Your task to perform on an android device: turn off picture-in-picture Image 0: 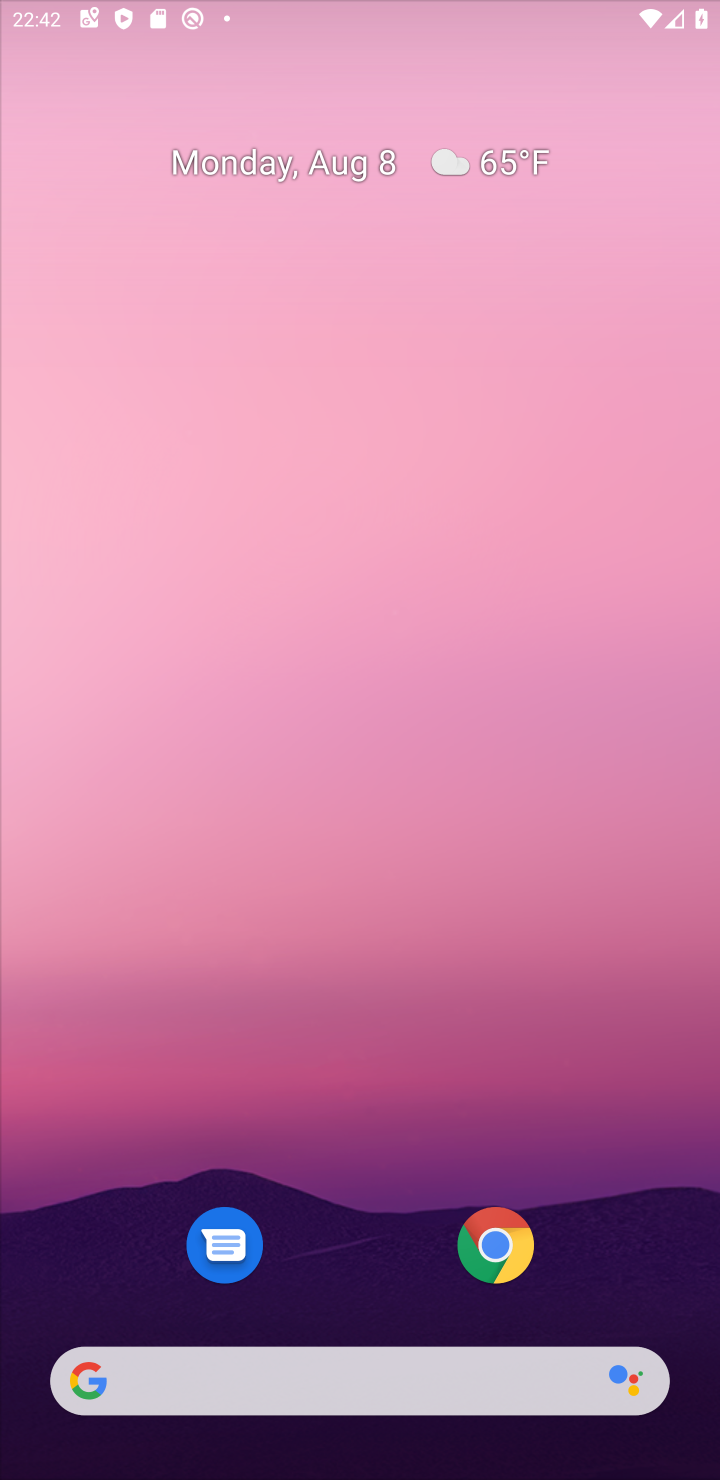
Step 0: click (155, 749)
Your task to perform on an android device: turn off picture-in-picture Image 1: 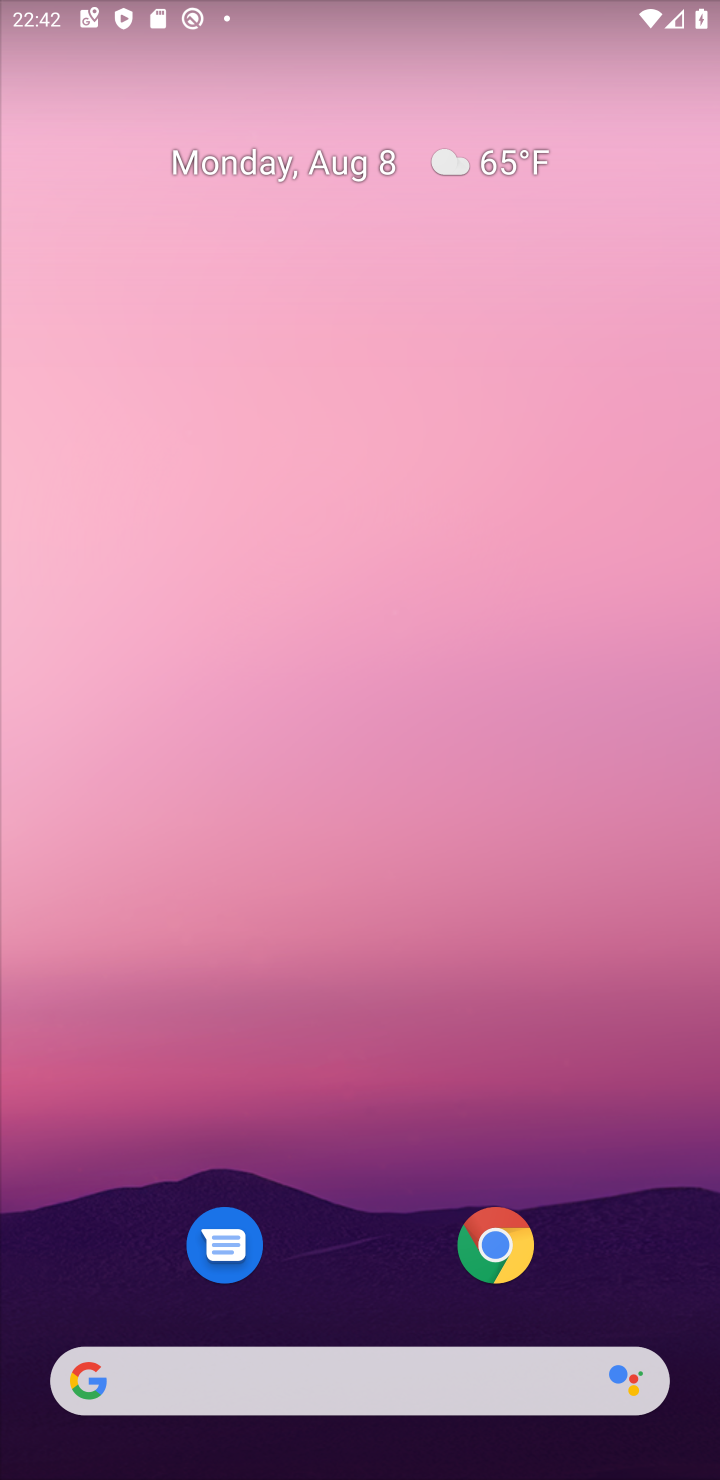
Step 1: drag from (355, 1122) to (391, 170)
Your task to perform on an android device: turn off picture-in-picture Image 2: 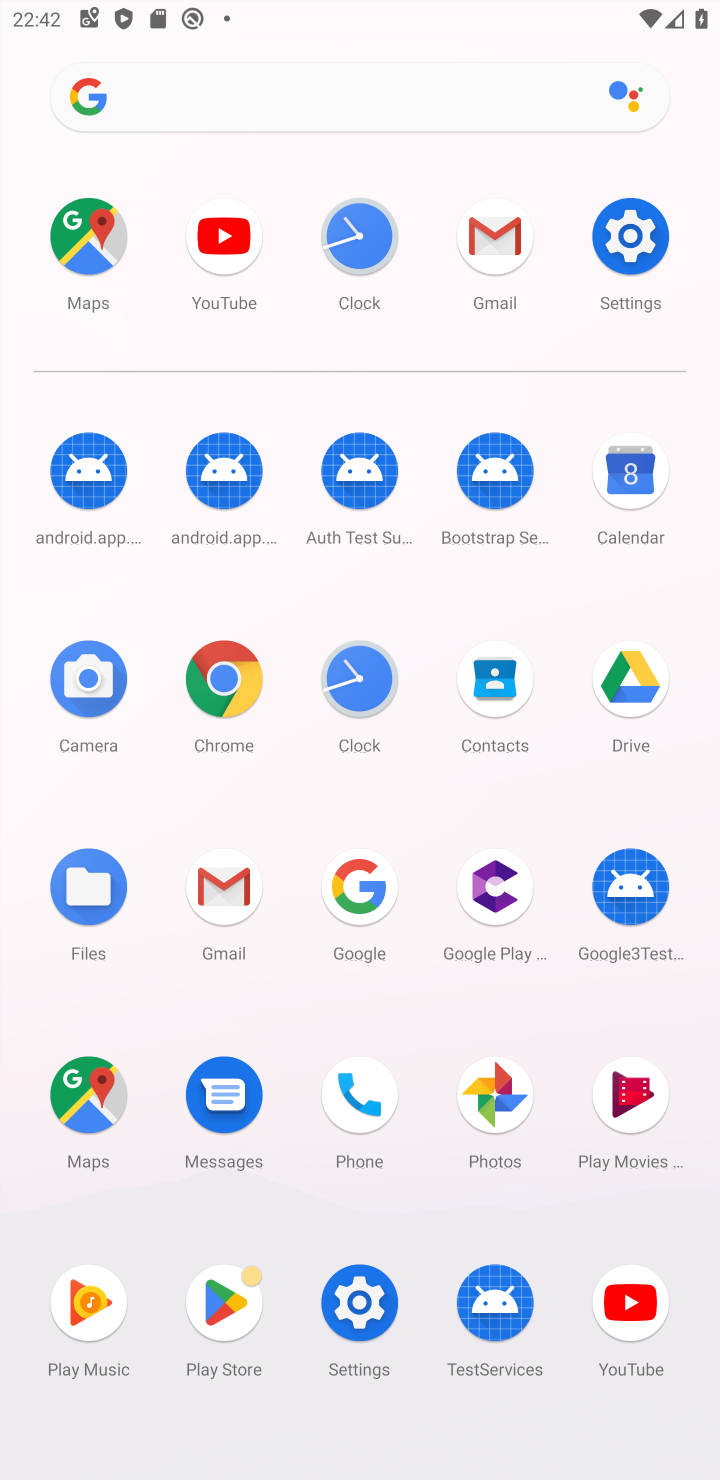
Step 2: click (632, 237)
Your task to perform on an android device: turn off picture-in-picture Image 3: 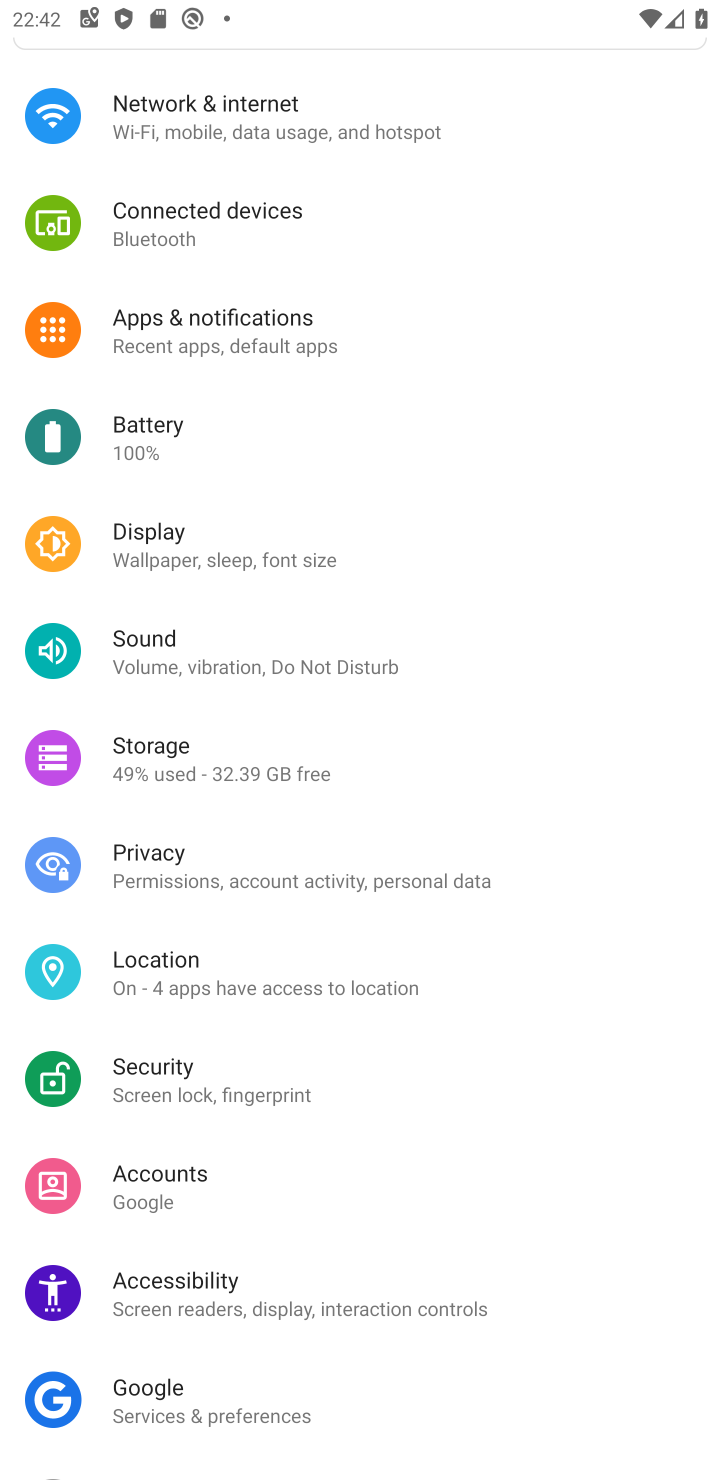
Step 3: click (187, 318)
Your task to perform on an android device: turn off picture-in-picture Image 4: 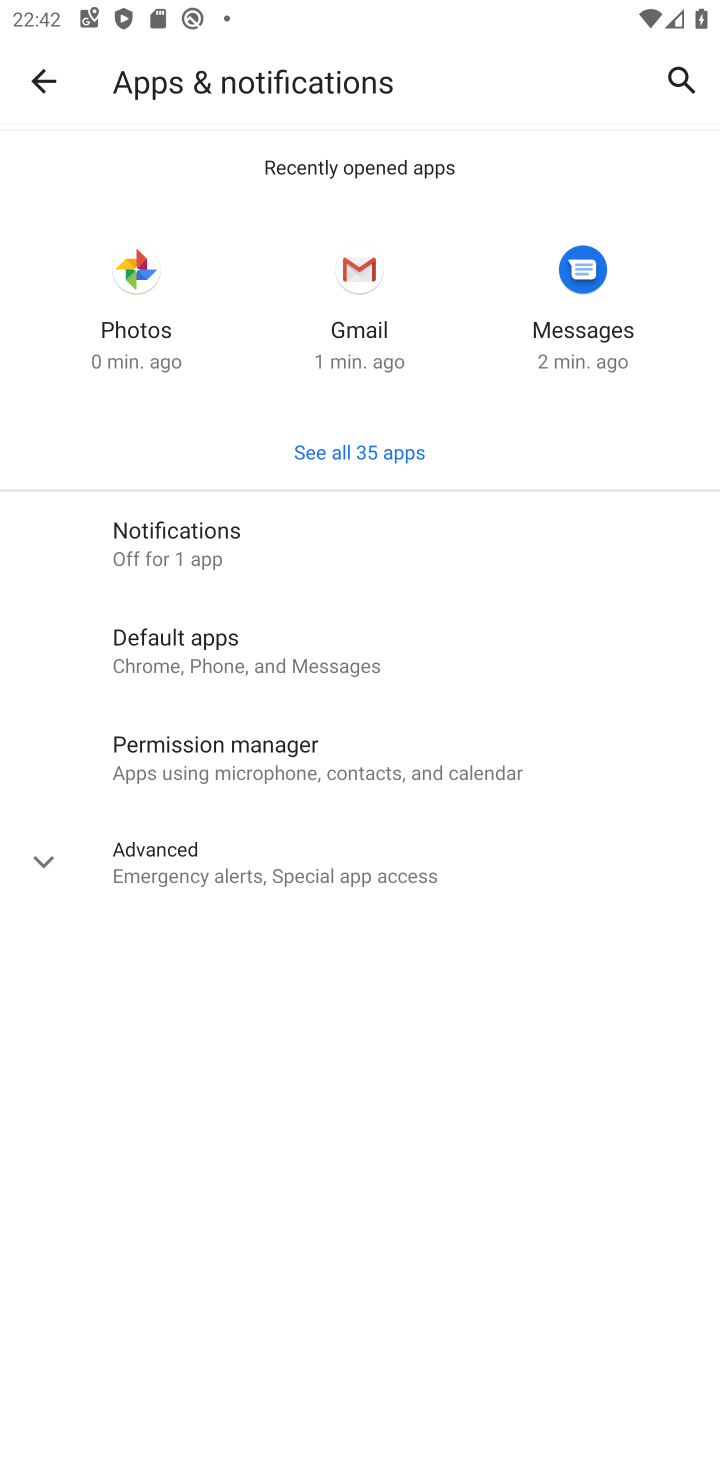
Step 4: click (77, 836)
Your task to perform on an android device: turn off picture-in-picture Image 5: 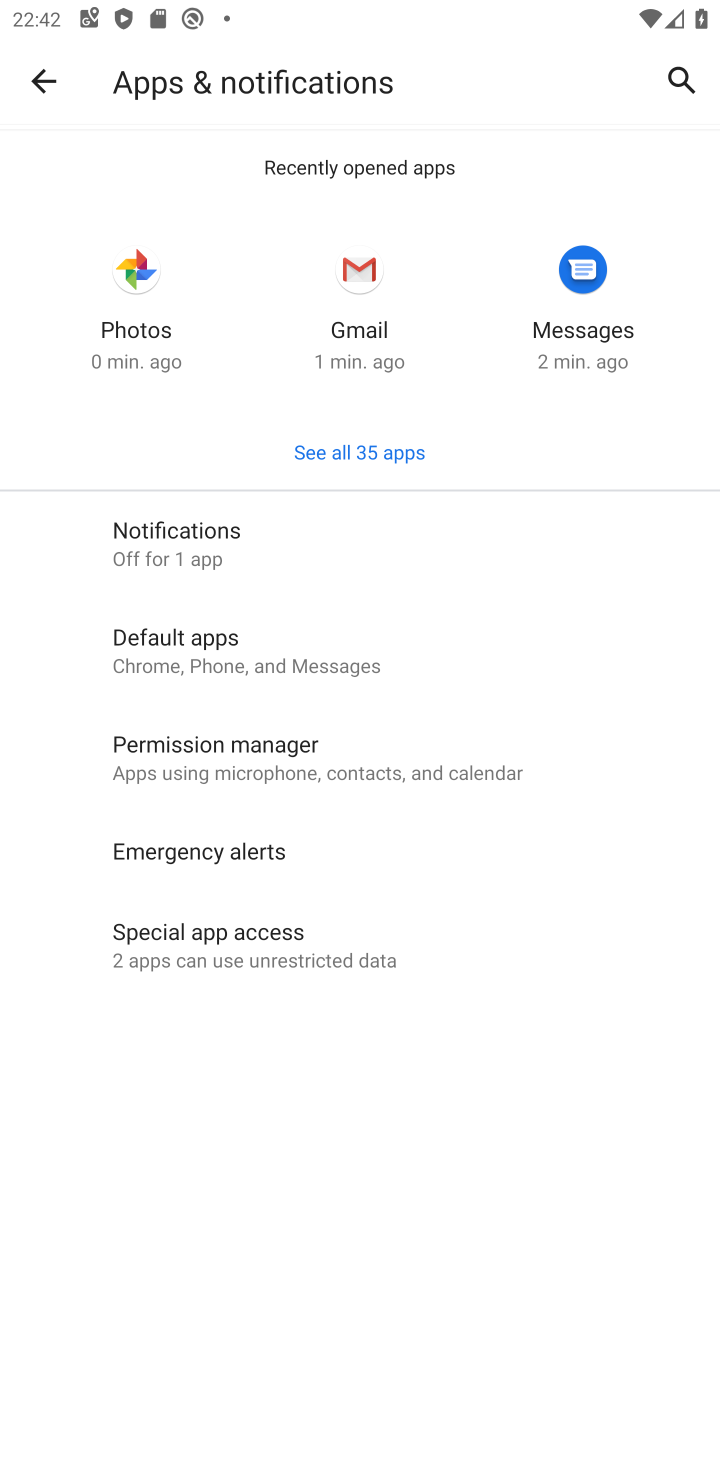
Step 5: click (214, 934)
Your task to perform on an android device: turn off picture-in-picture Image 6: 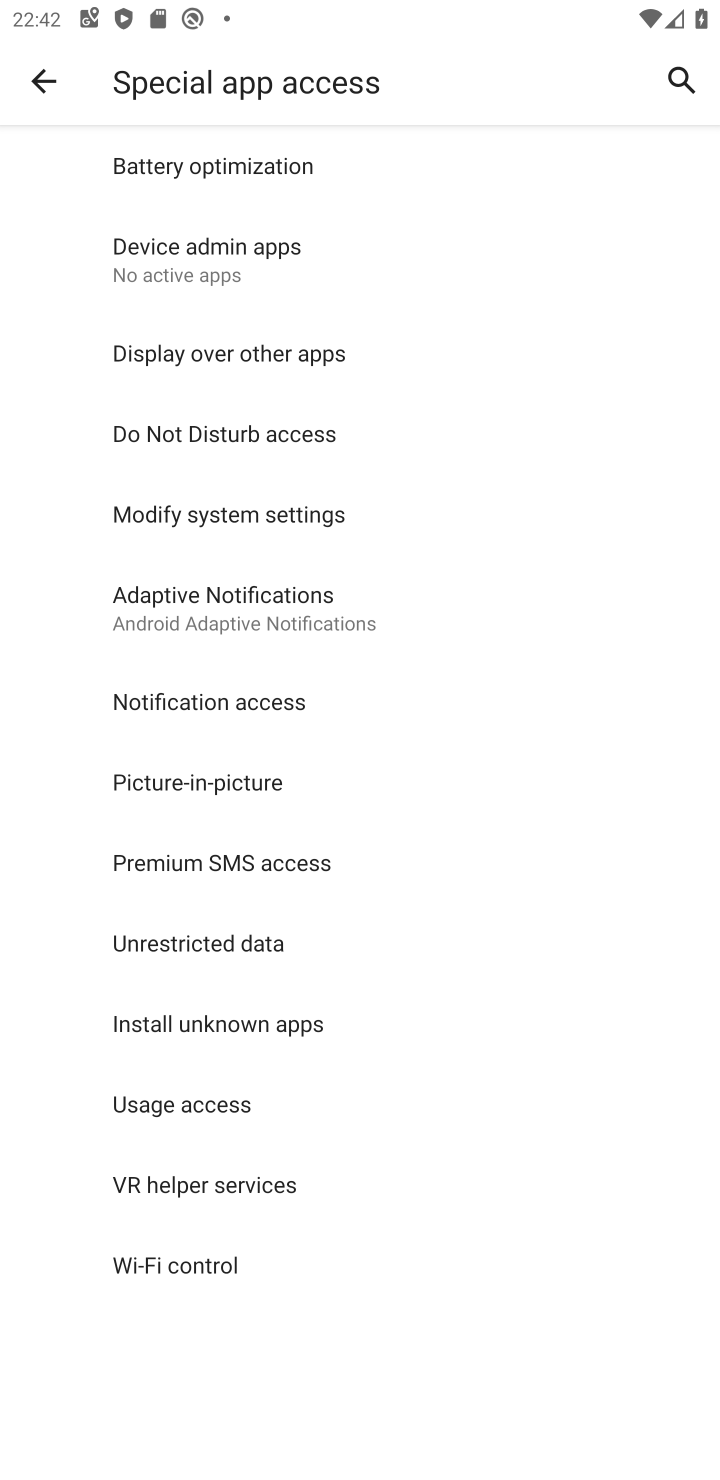
Step 6: click (200, 776)
Your task to perform on an android device: turn off picture-in-picture Image 7: 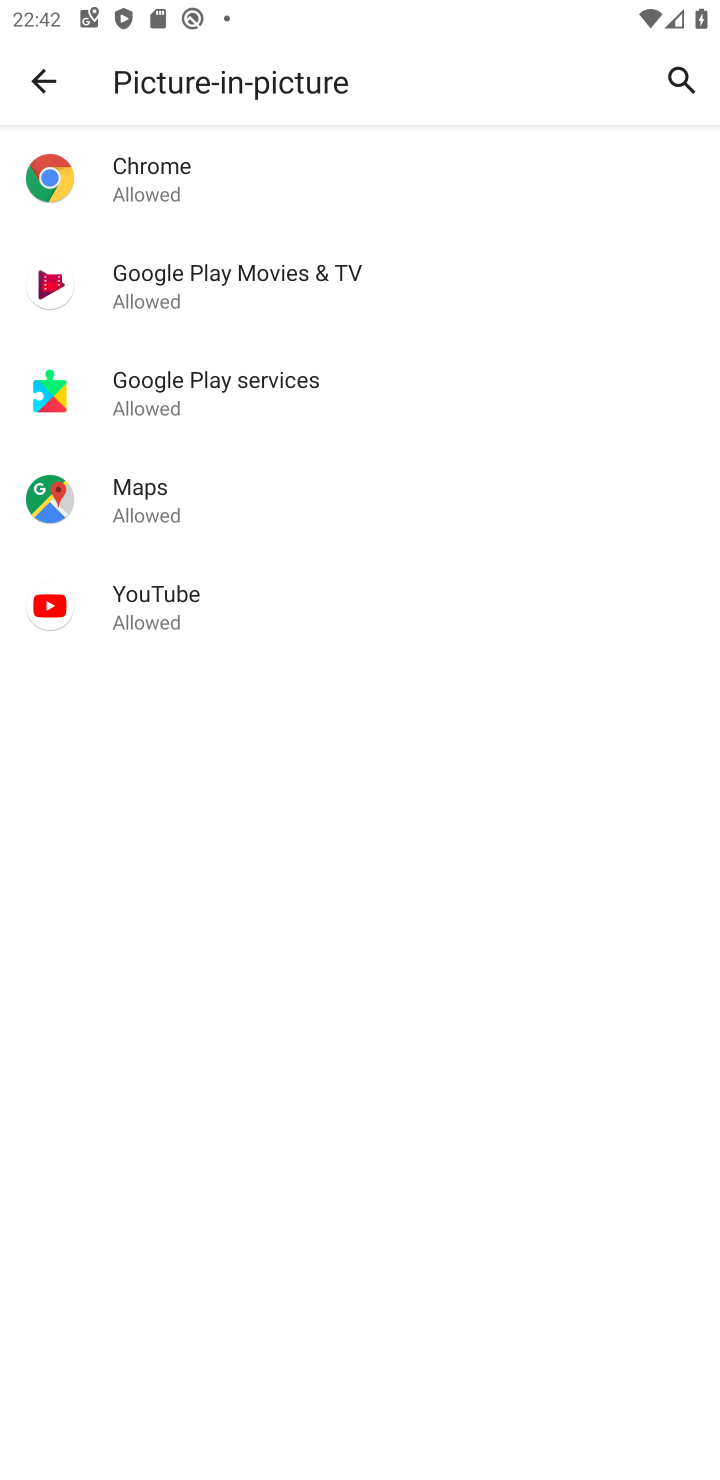
Step 7: click (130, 156)
Your task to perform on an android device: turn off picture-in-picture Image 8: 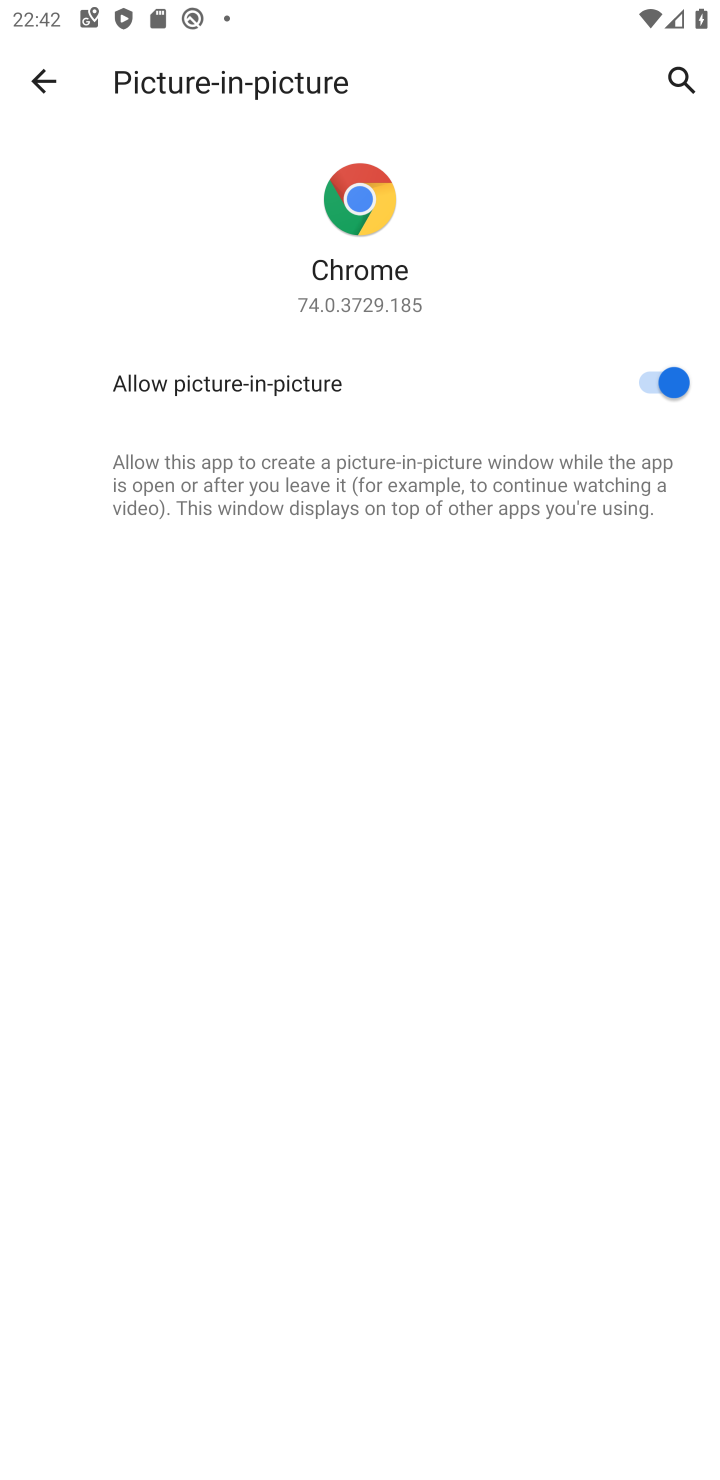
Step 8: click (660, 387)
Your task to perform on an android device: turn off picture-in-picture Image 9: 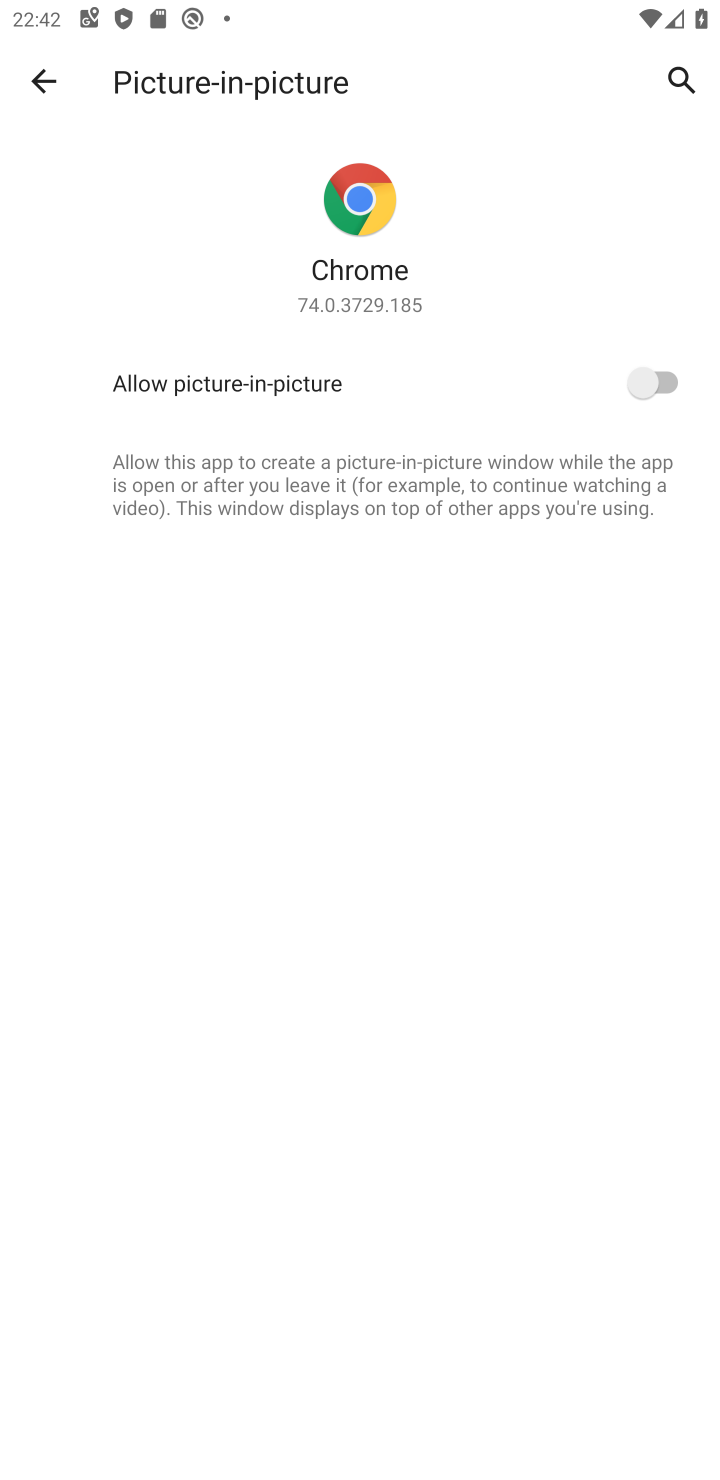
Step 9: click (36, 91)
Your task to perform on an android device: turn off picture-in-picture Image 10: 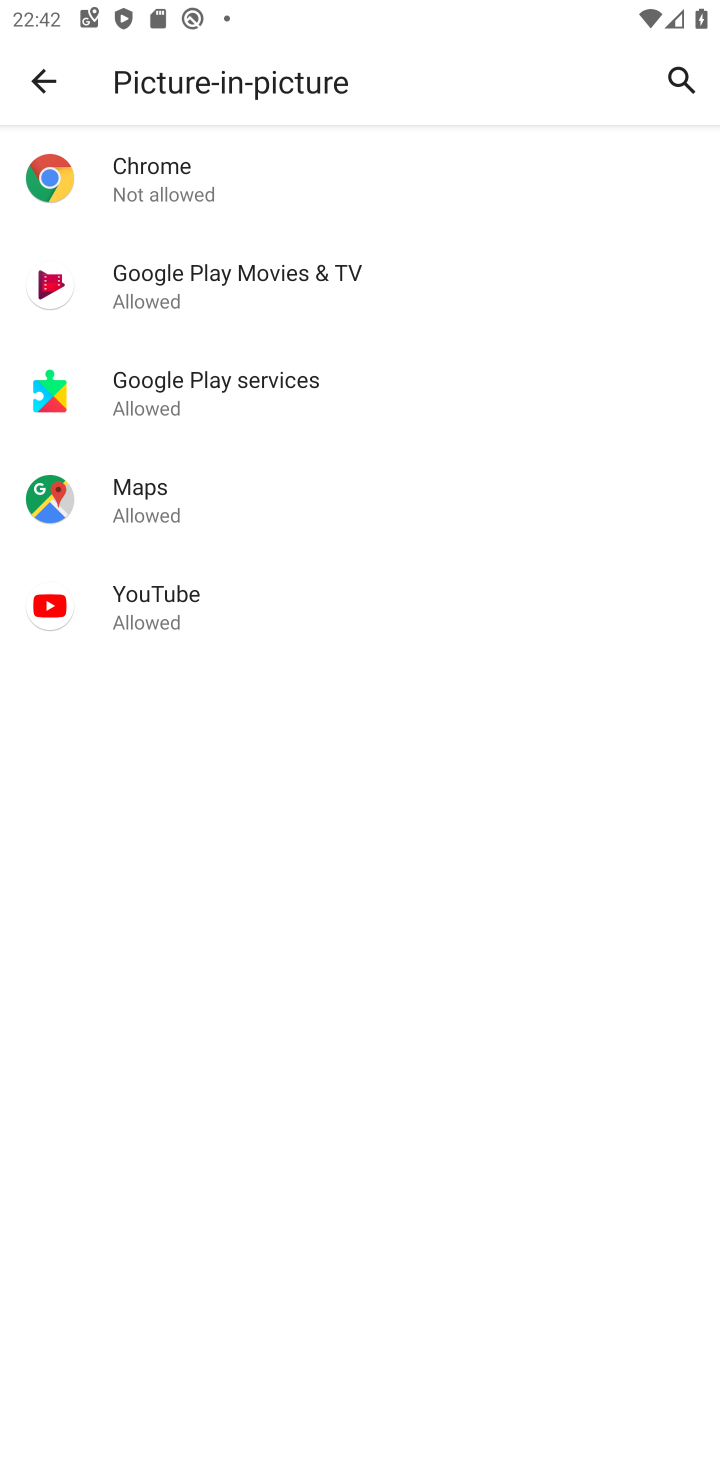
Step 10: click (180, 285)
Your task to perform on an android device: turn off picture-in-picture Image 11: 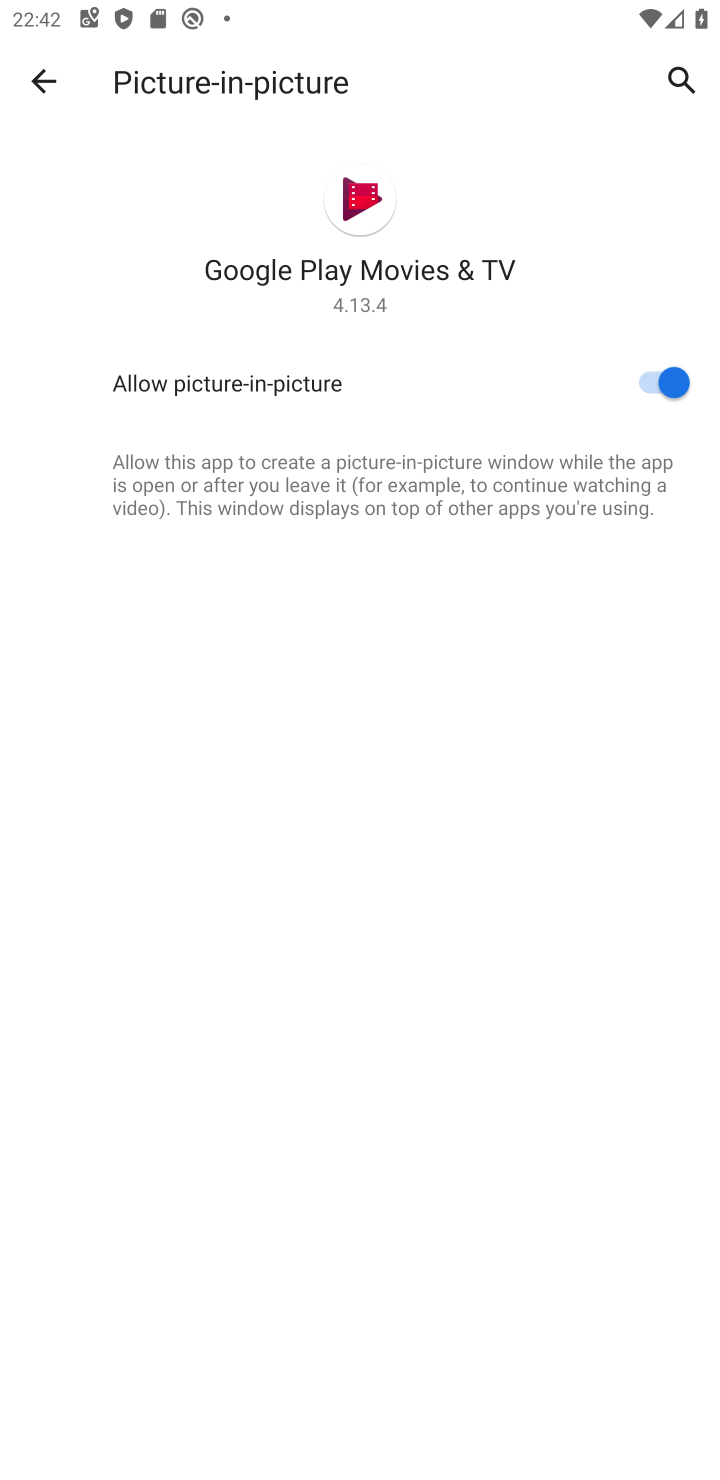
Step 11: click (649, 373)
Your task to perform on an android device: turn off picture-in-picture Image 12: 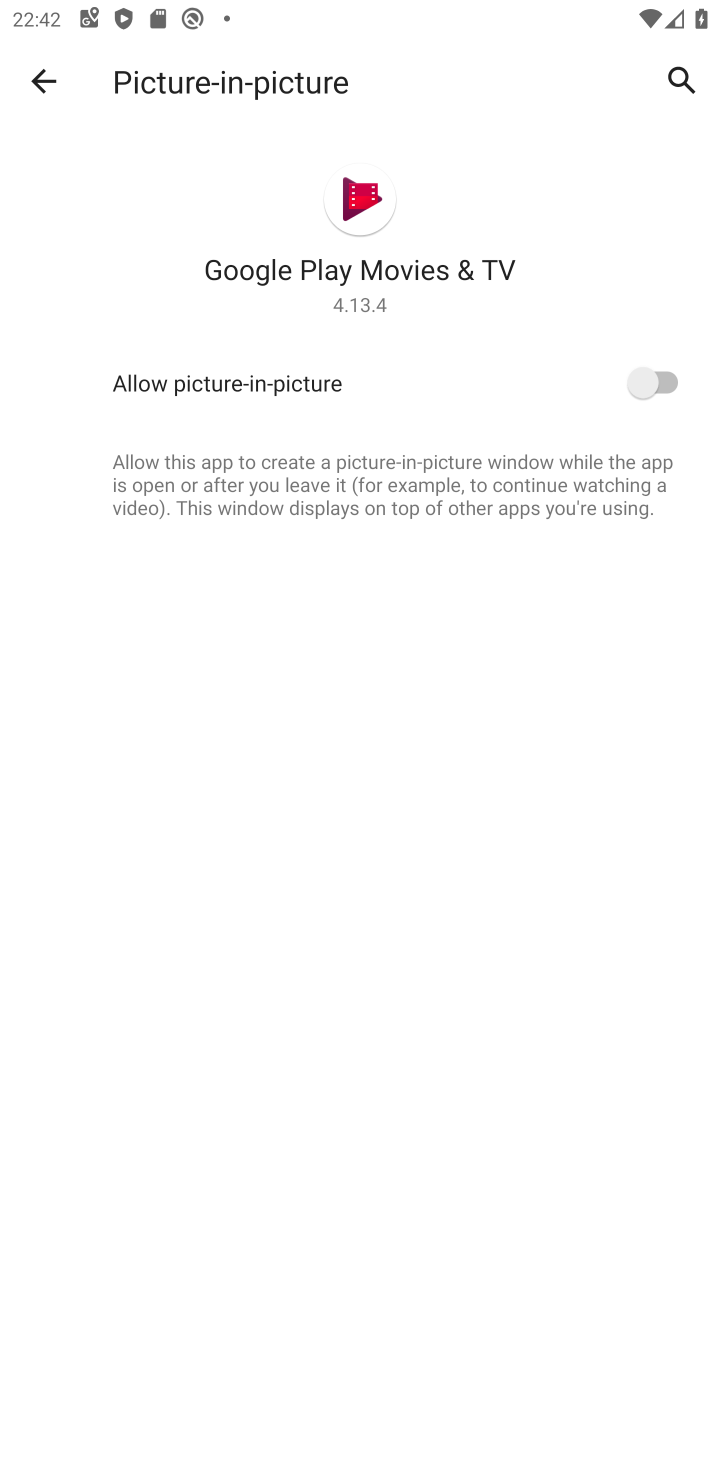
Step 12: click (43, 76)
Your task to perform on an android device: turn off picture-in-picture Image 13: 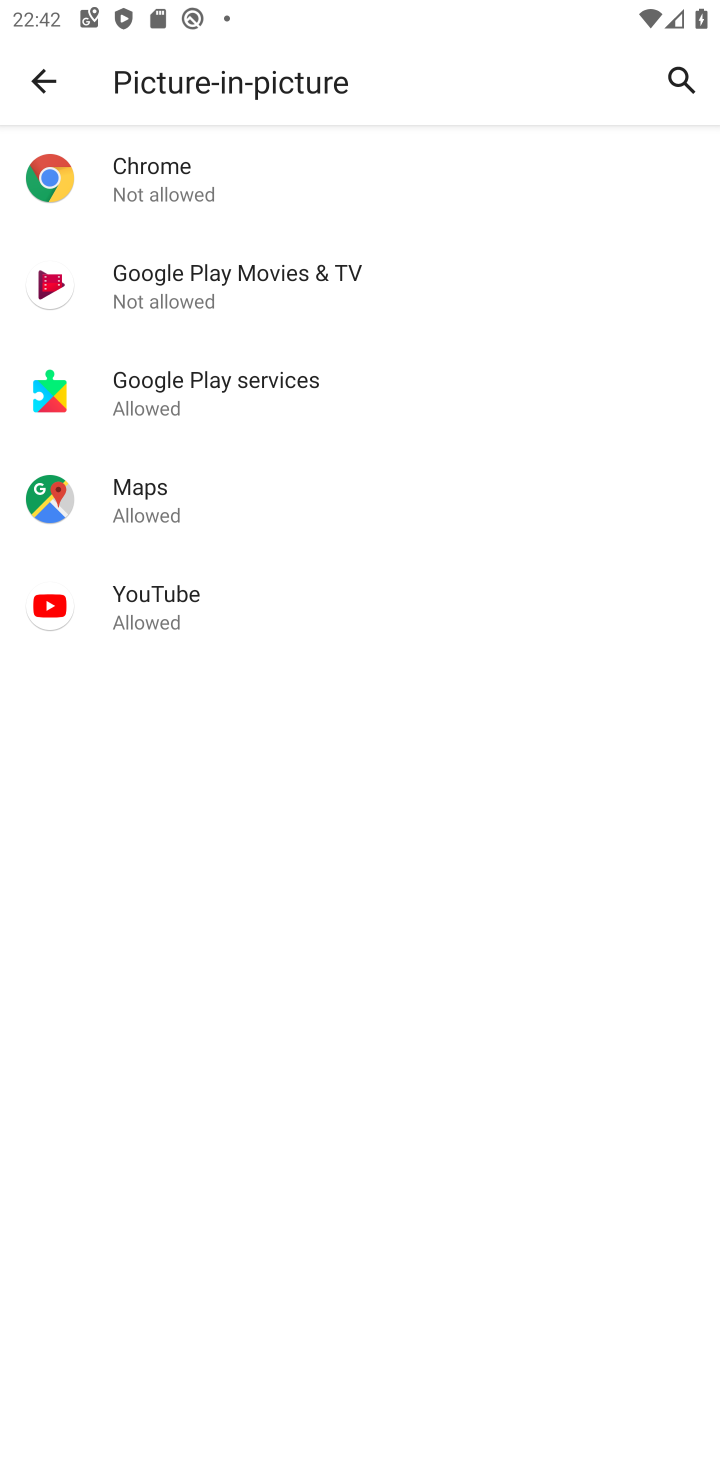
Step 13: click (139, 387)
Your task to perform on an android device: turn off picture-in-picture Image 14: 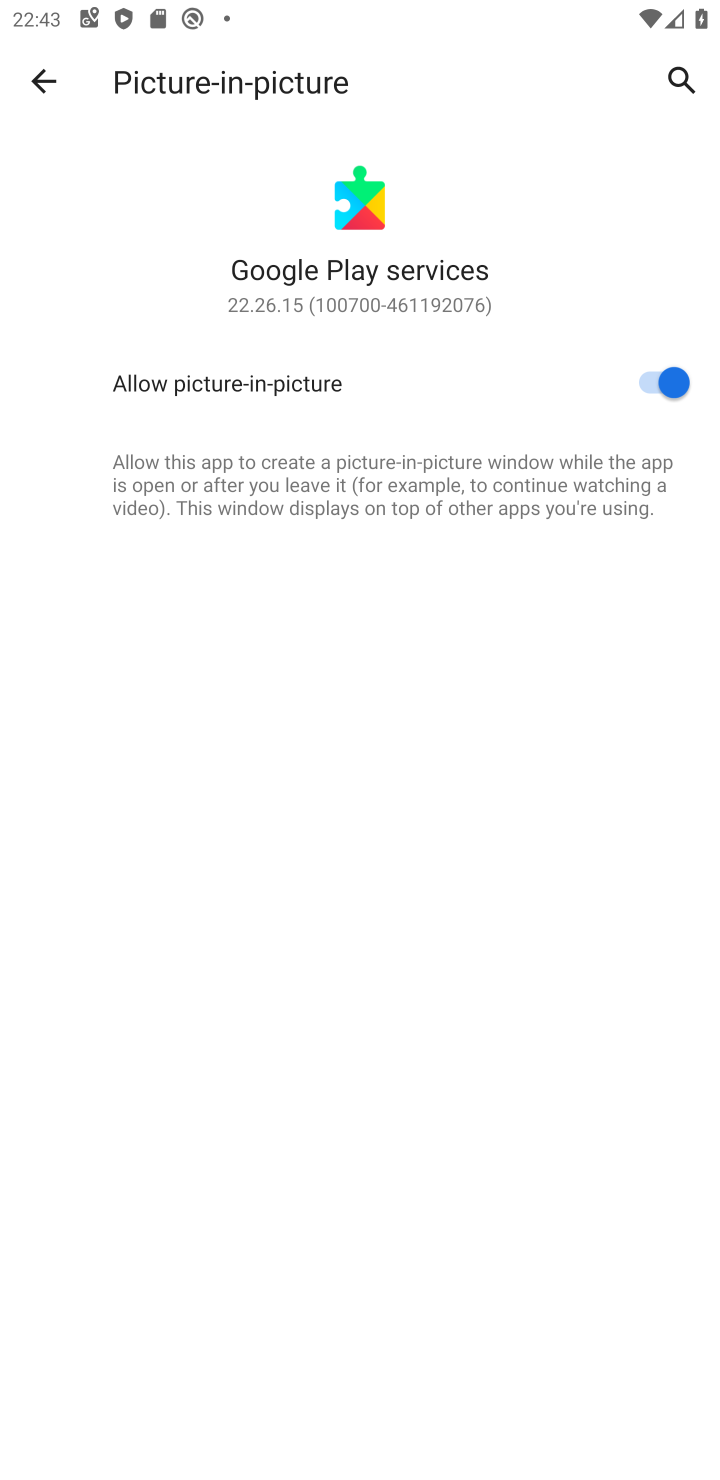
Step 14: click (676, 382)
Your task to perform on an android device: turn off picture-in-picture Image 15: 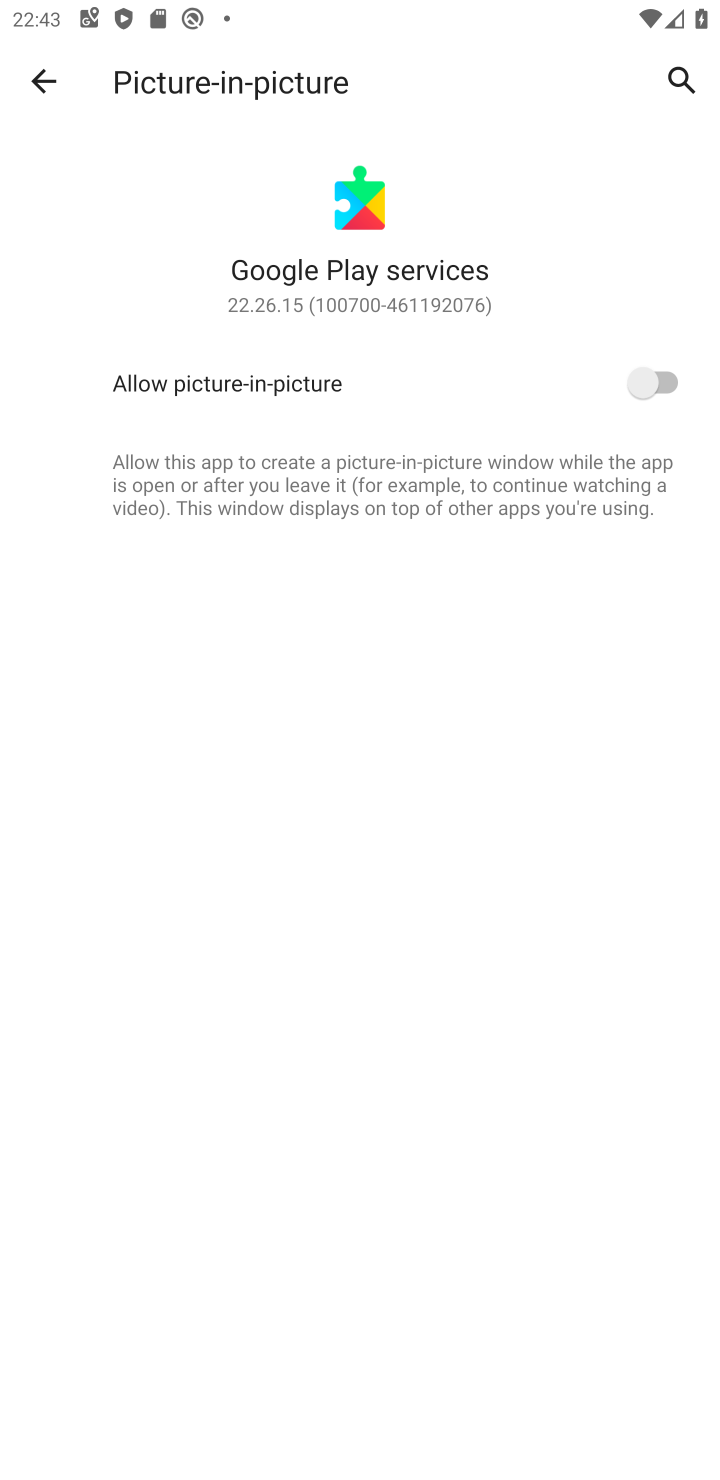
Step 15: click (43, 66)
Your task to perform on an android device: turn off picture-in-picture Image 16: 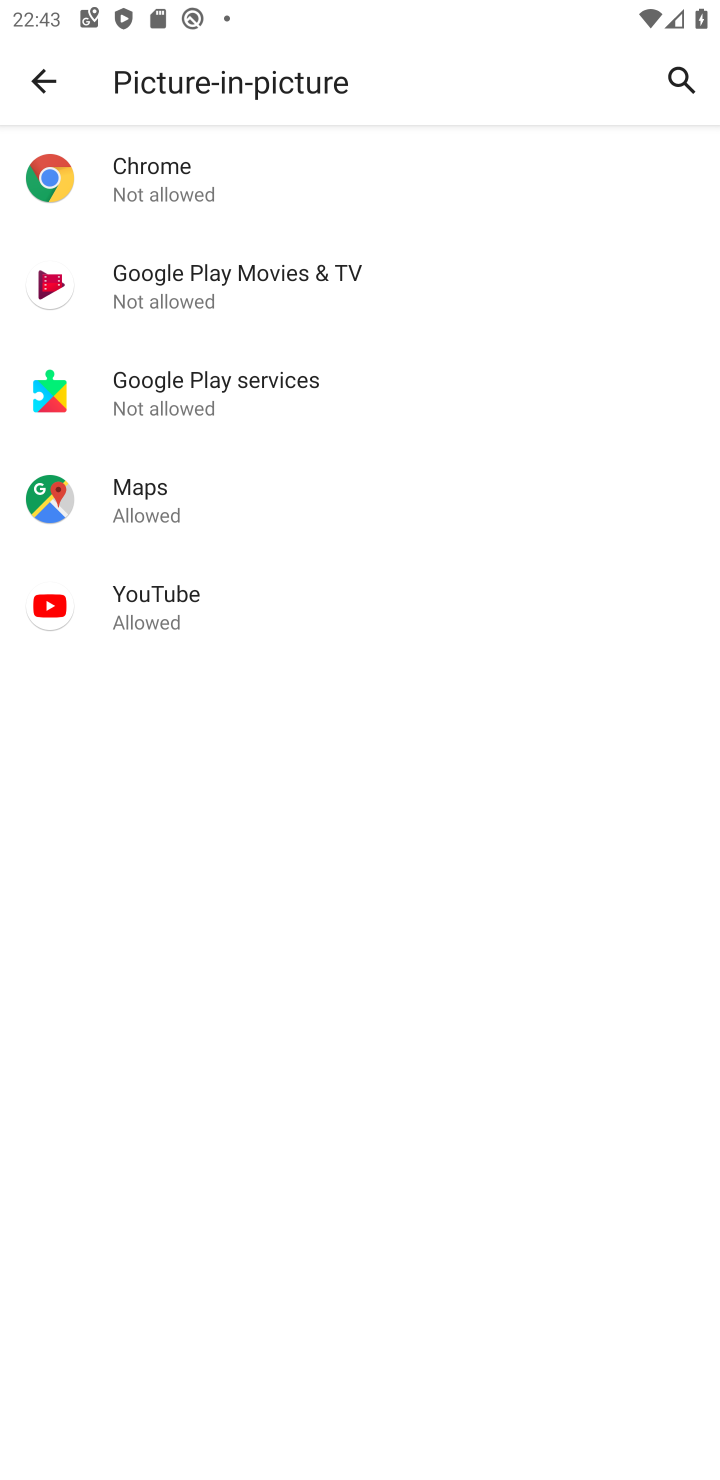
Step 16: click (112, 499)
Your task to perform on an android device: turn off picture-in-picture Image 17: 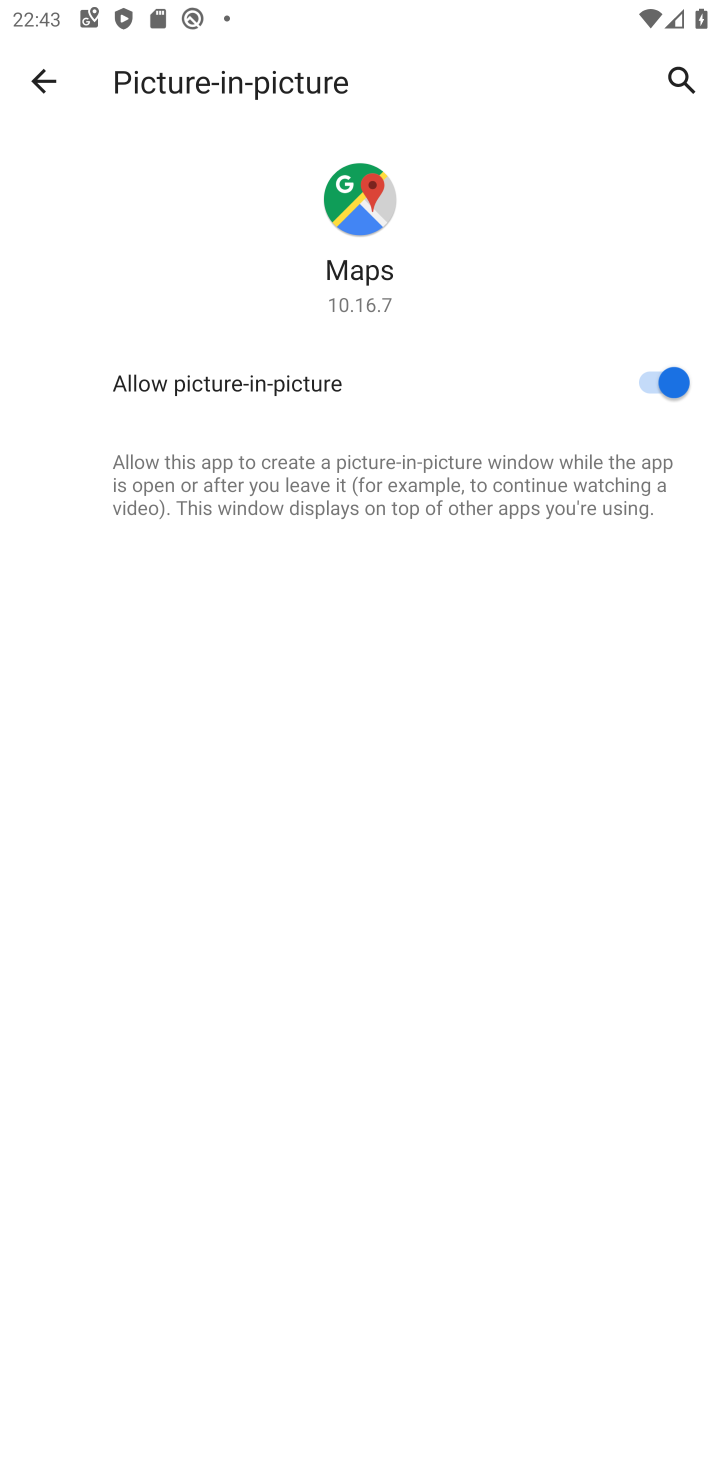
Step 17: click (657, 368)
Your task to perform on an android device: turn off picture-in-picture Image 18: 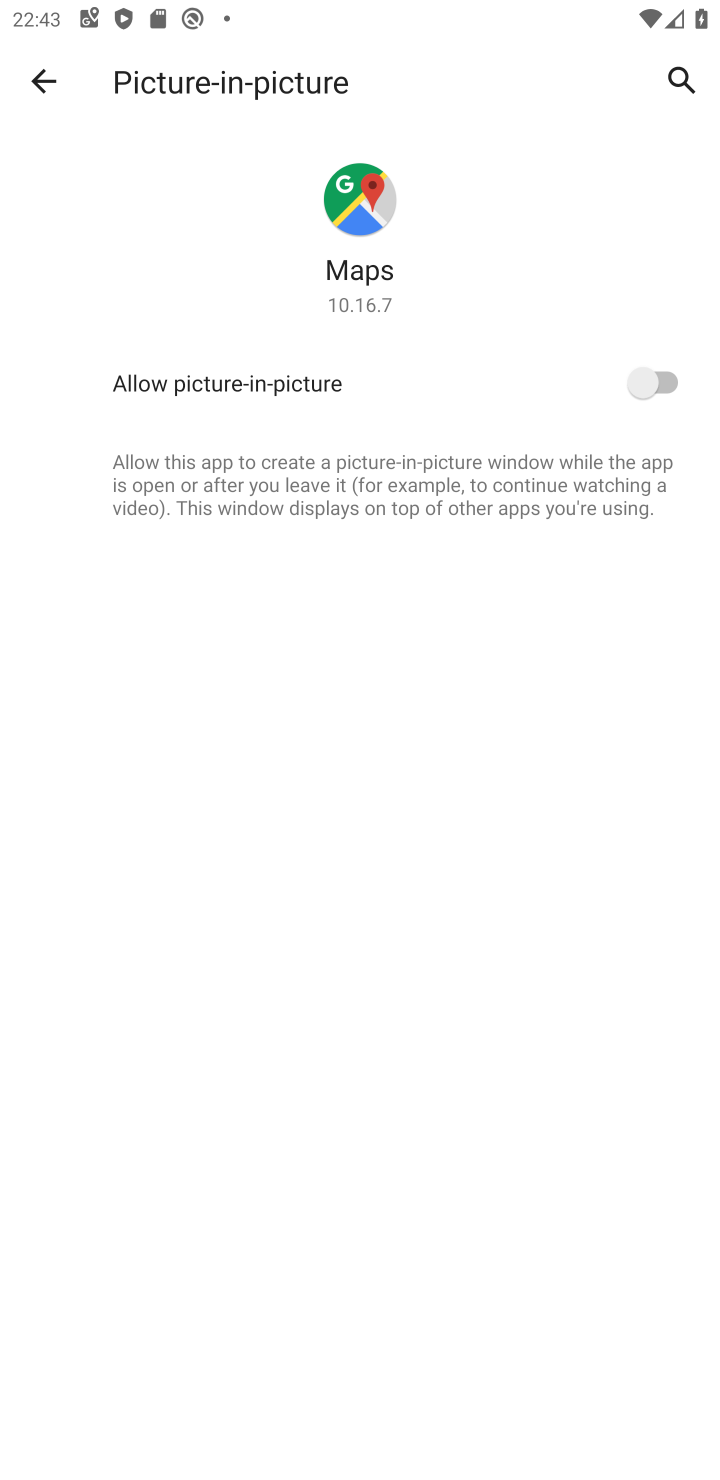
Step 18: click (50, 74)
Your task to perform on an android device: turn off picture-in-picture Image 19: 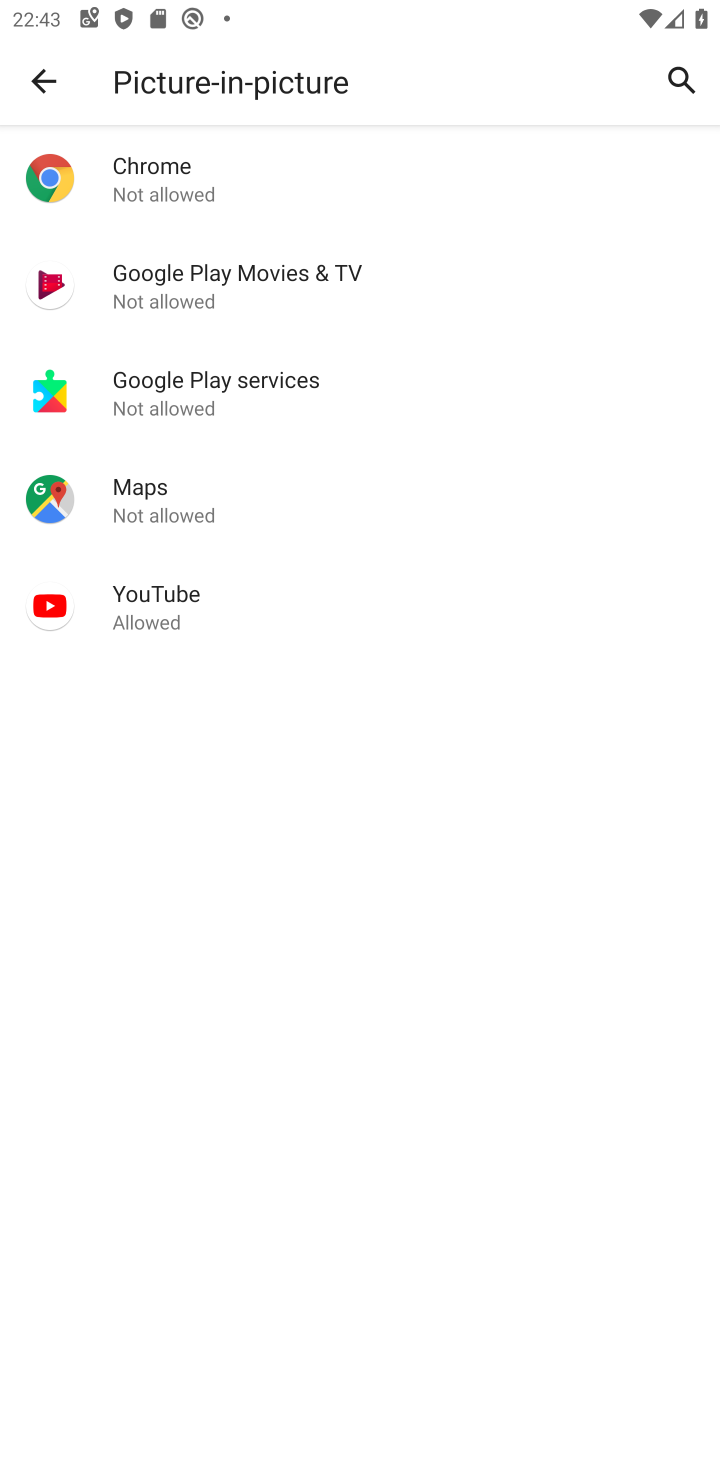
Step 19: click (125, 595)
Your task to perform on an android device: turn off picture-in-picture Image 20: 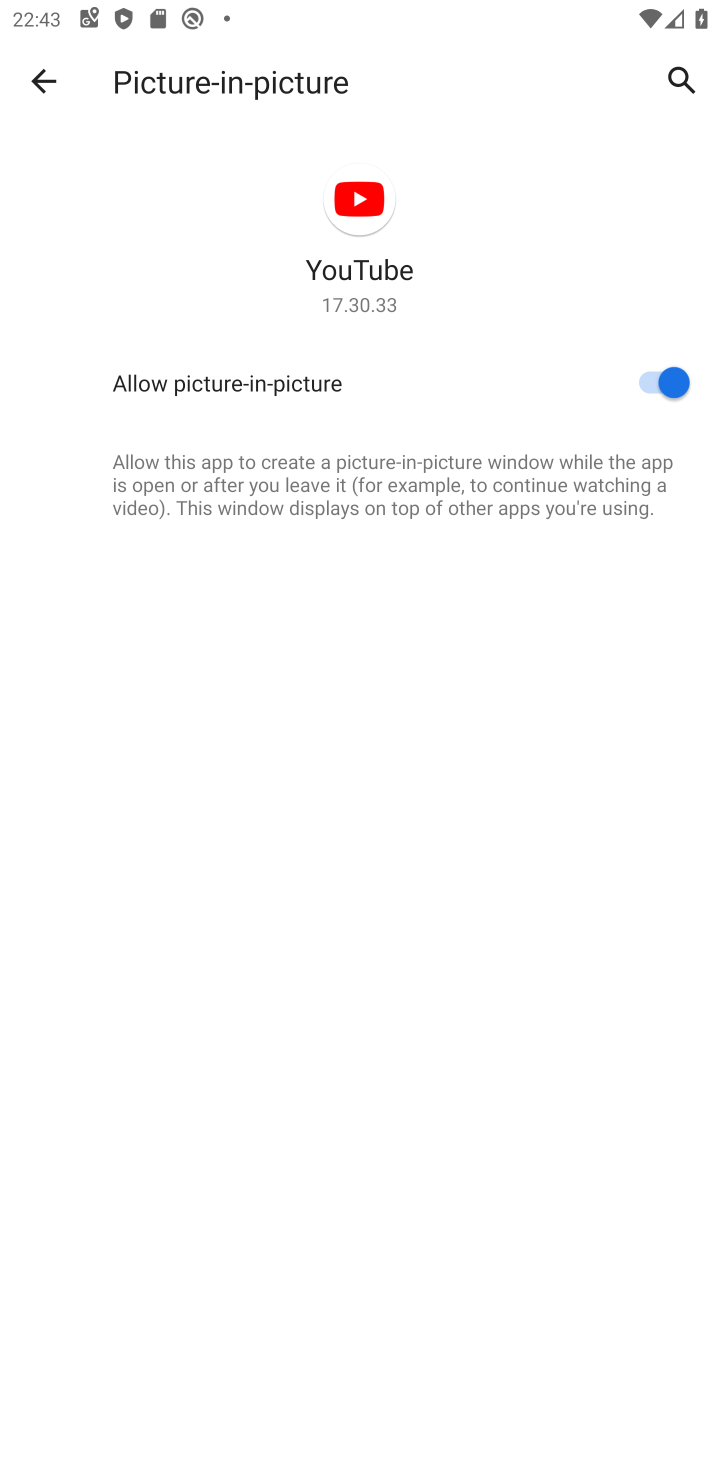
Step 20: click (664, 381)
Your task to perform on an android device: turn off picture-in-picture Image 21: 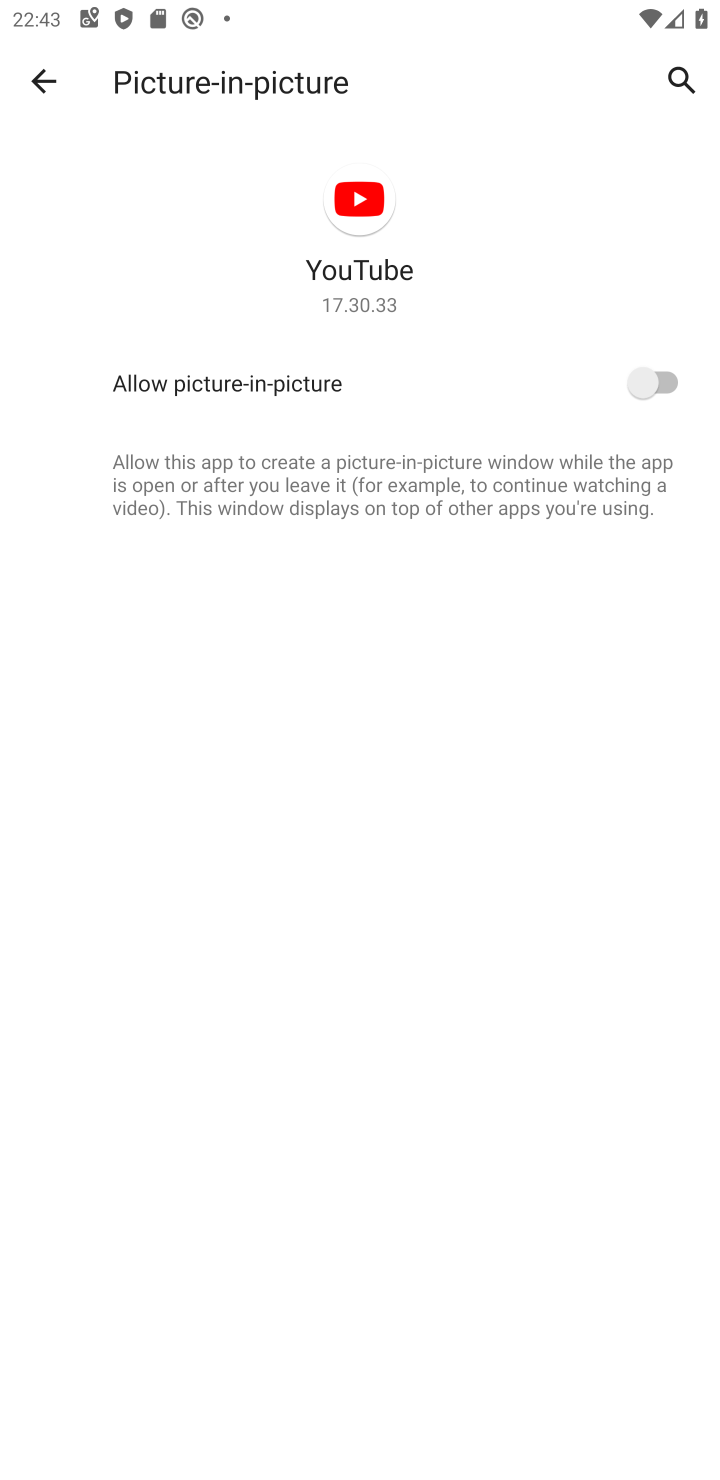
Step 21: click (52, 67)
Your task to perform on an android device: turn off picture-in-picture Image 22: 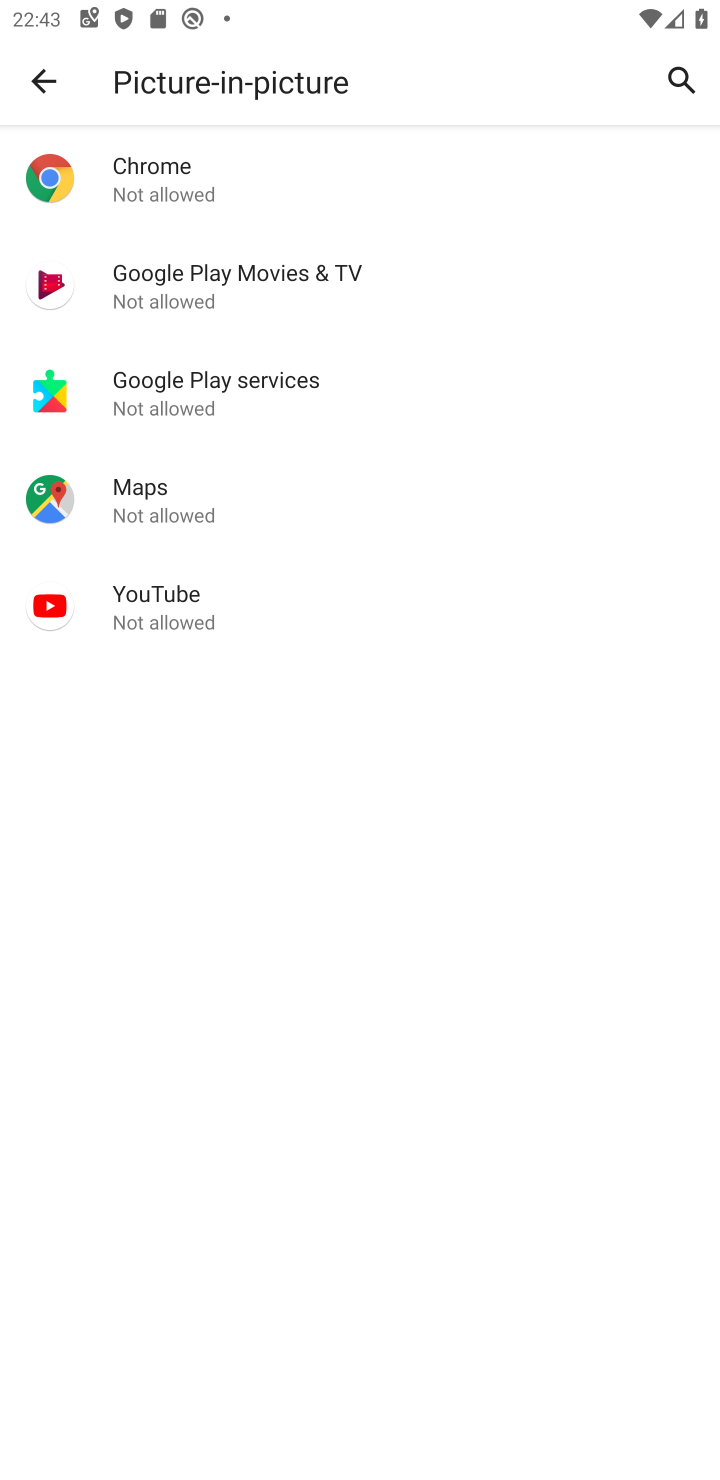
Step 22: task complete